Your task to perform on an android device: How big is the moon? Image 0: 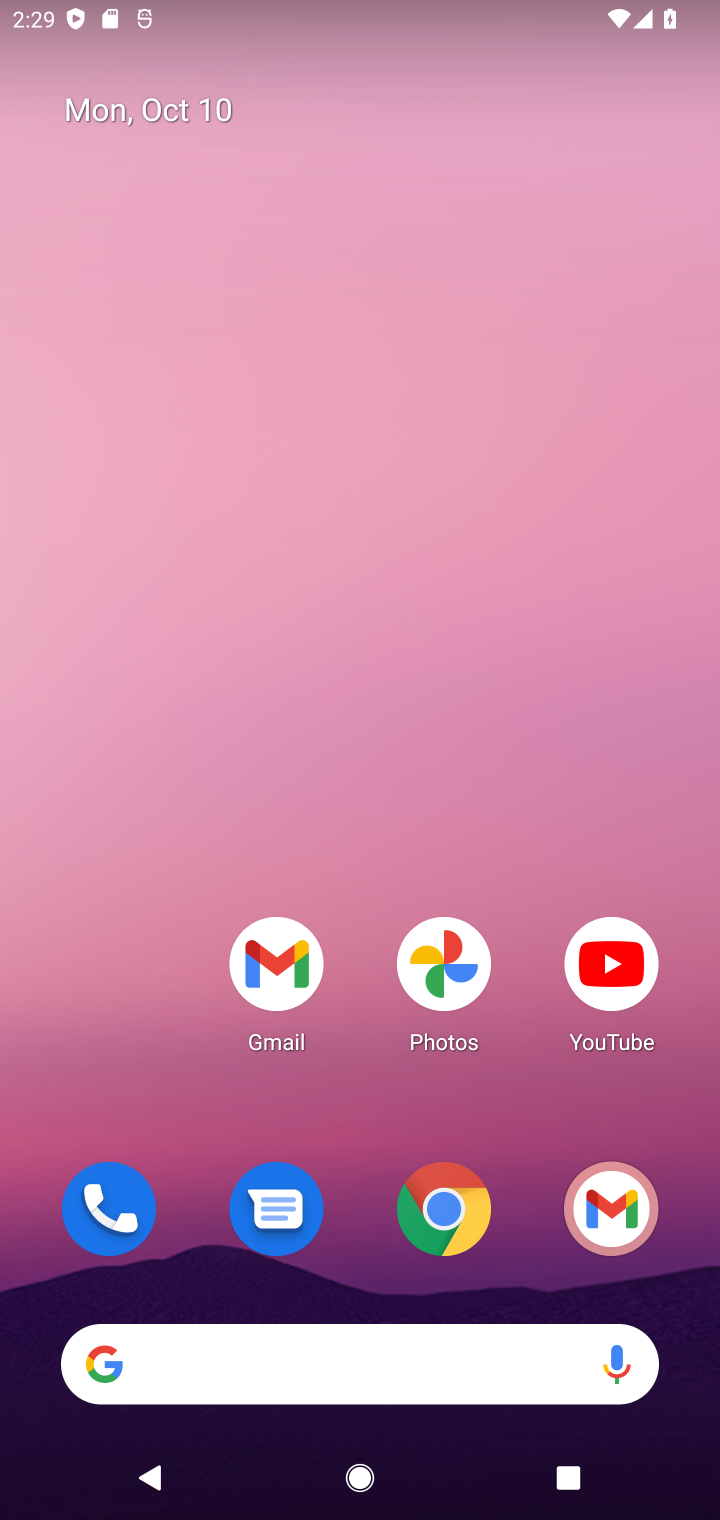
Step 0: click (486, 1202)
Your task to perform on an android device: How big is the moon? Image 1: 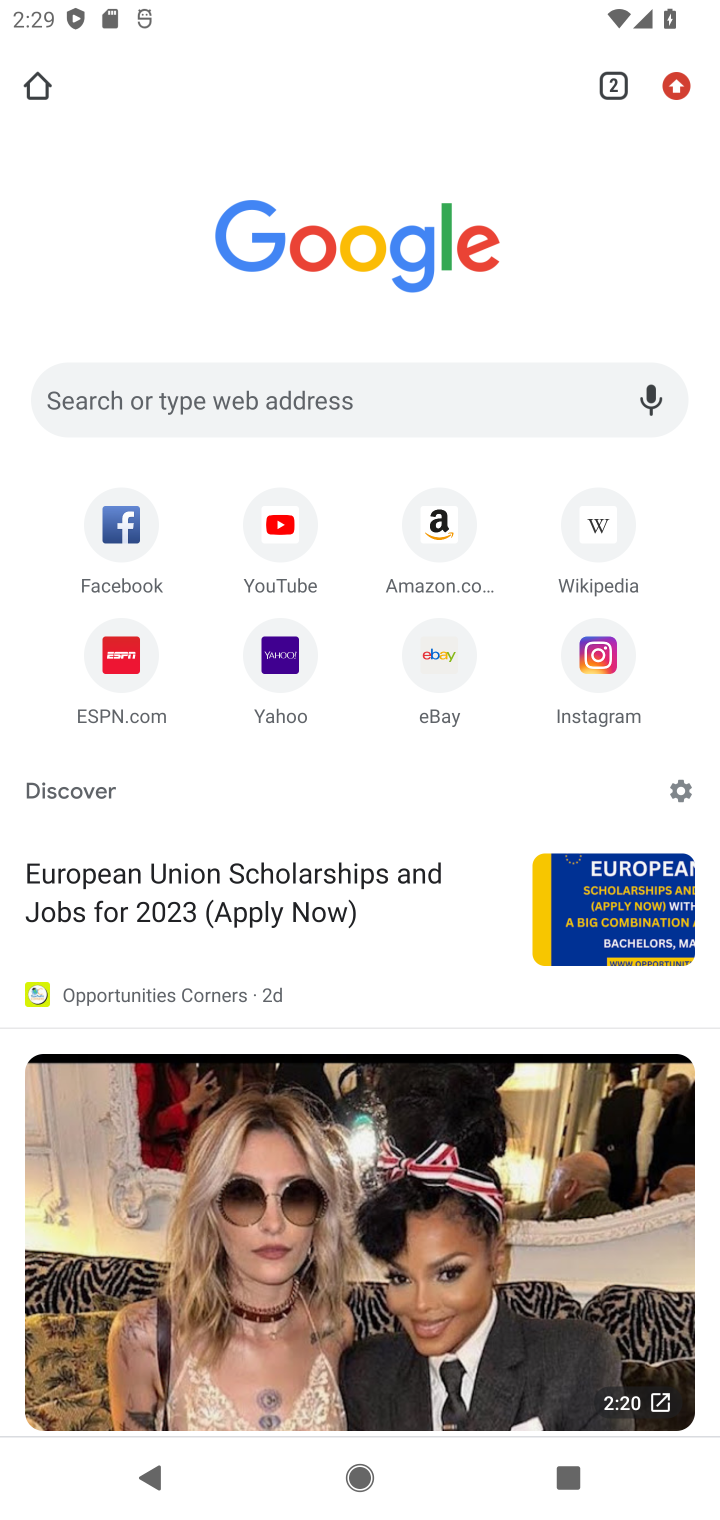
Step 1: click (310, 401)
Your task to perform on an android device: How big is the moon? Image 2: 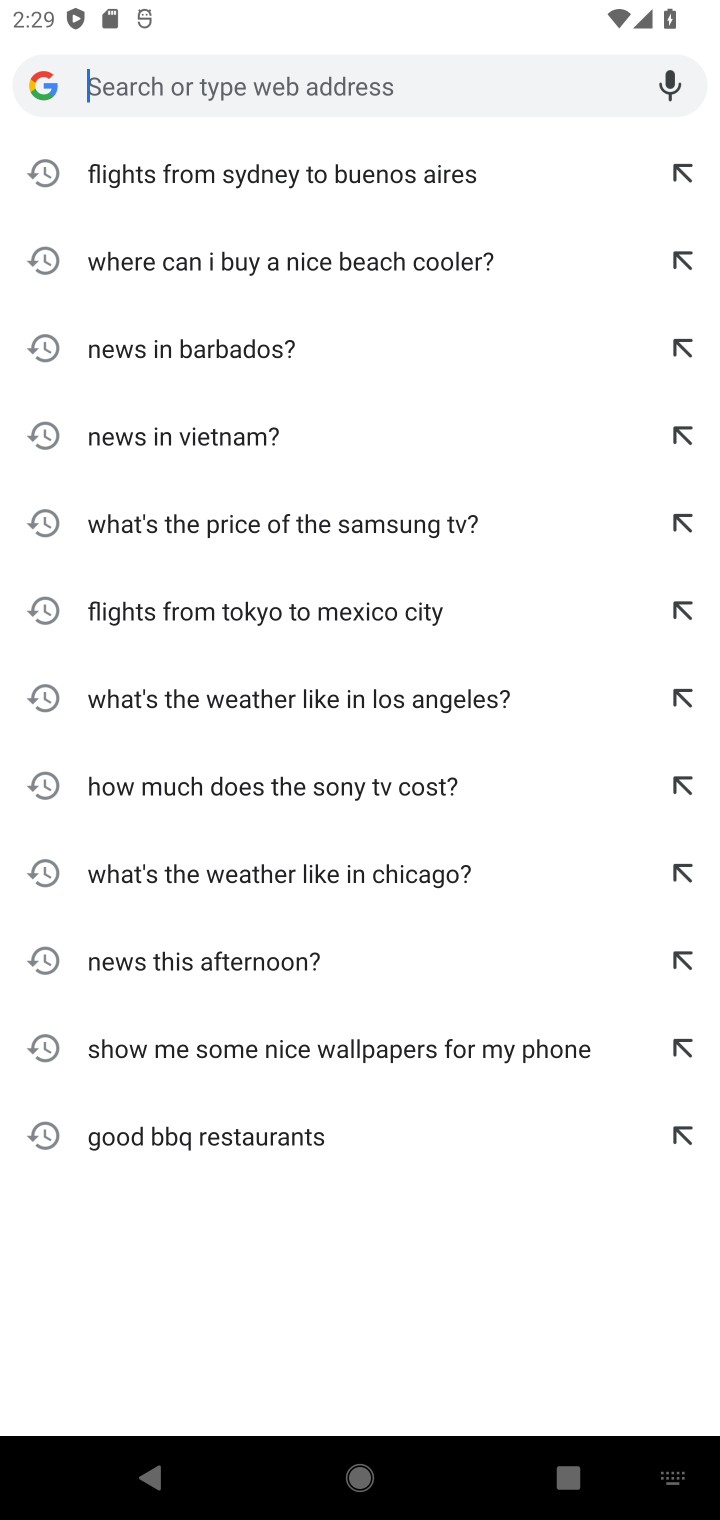
Step 2: type "How big is the moon?"
Your task to perform on an android device: How big is the moon? Image 3: 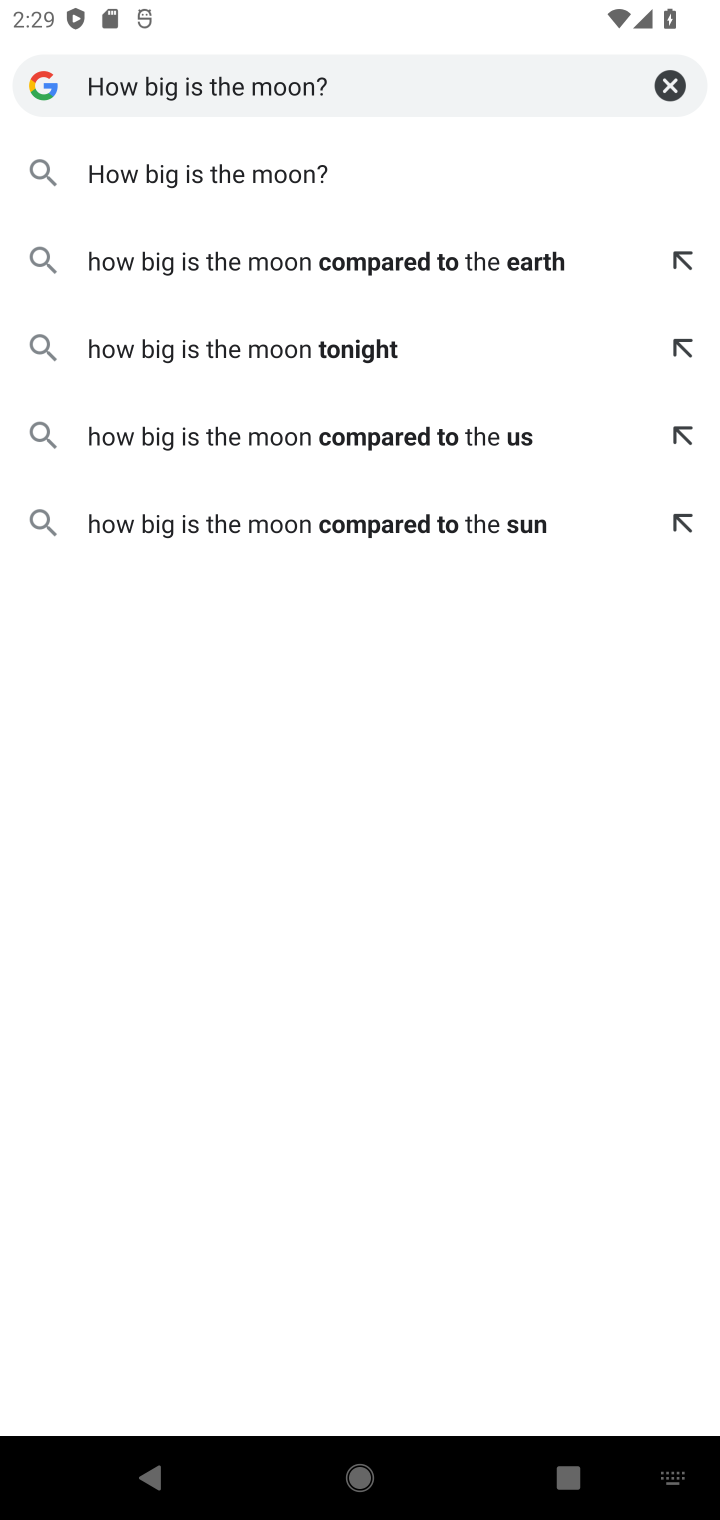
Step 3: click (223, 206)
Your task to perform on an android device: How big is the moon? Image 4: 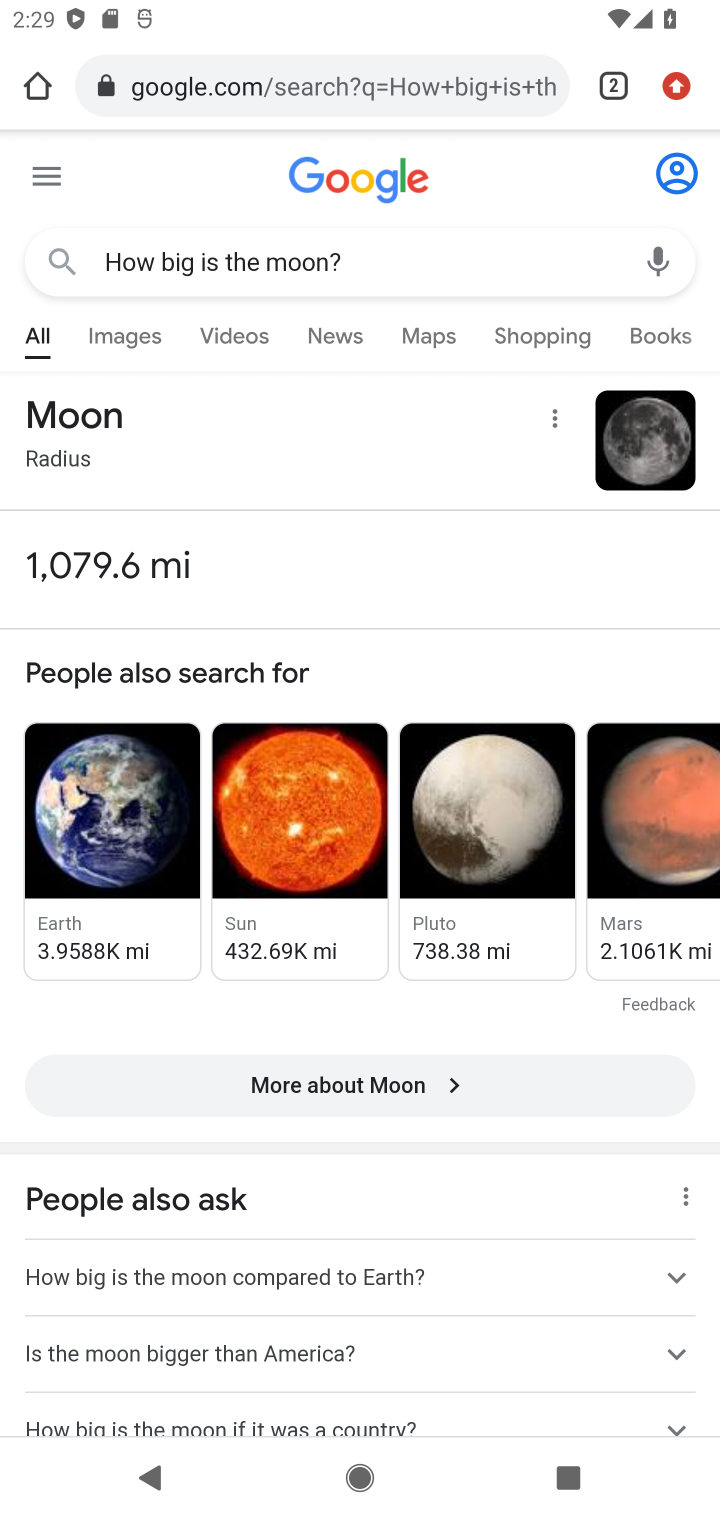
Step 4: task complete